Your task to perform on an android device: add a contact in the contacts app Image 0: 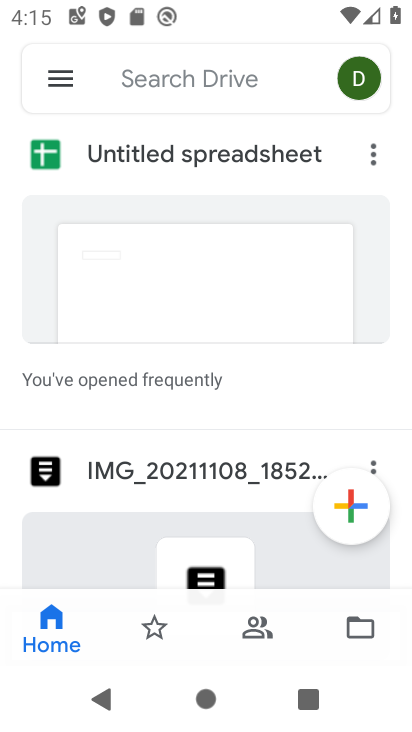
Step 0: press home button
Your task to perform on an android device: add a contact in the contacts app Image 1: 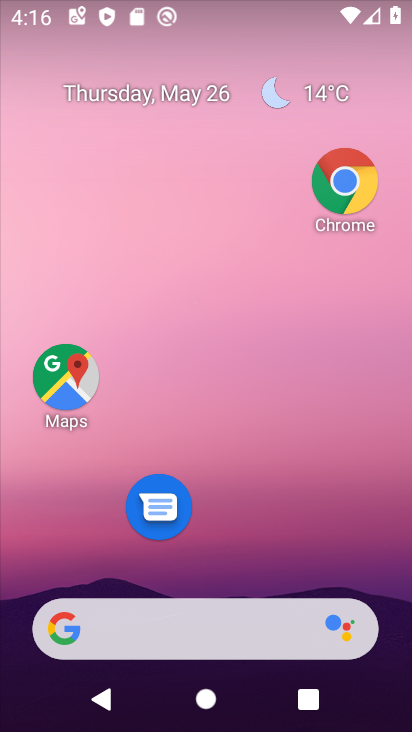
Step 1: drag from (235, 580) to (223, 53)
Your task to perform on an android device: add a contact in the contacts app Image 2: 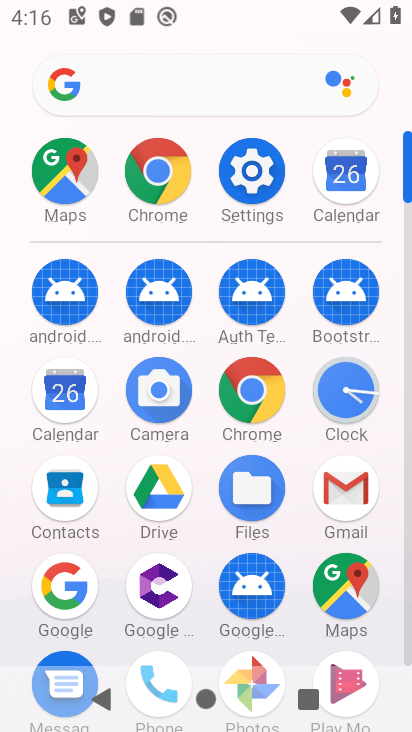
Step 2: drag from (196, 352) to (206, 45)
Your task to perform on an android device: add a contact in the contacts app Image 3: 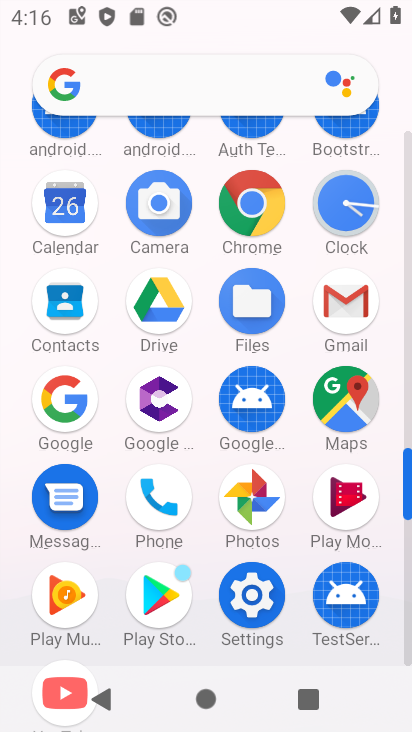
Step 3: click (55, 293)
Your task to perform on an android device: add a contact in the contacts app Image 4: 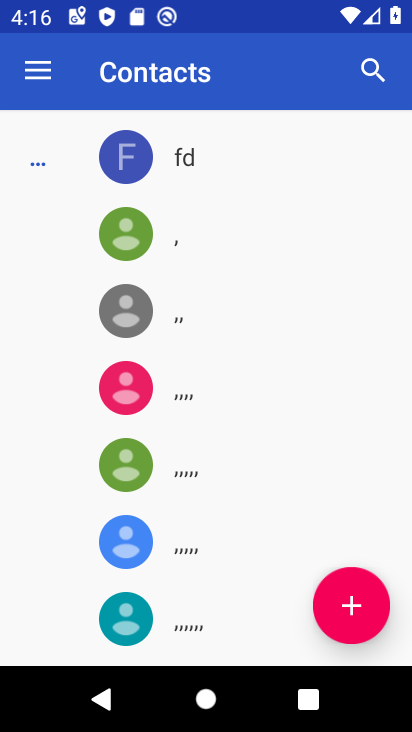
Step 4: click (347, 614)
Your task to perform on an android device: add a contact in the contacts app Image 5: 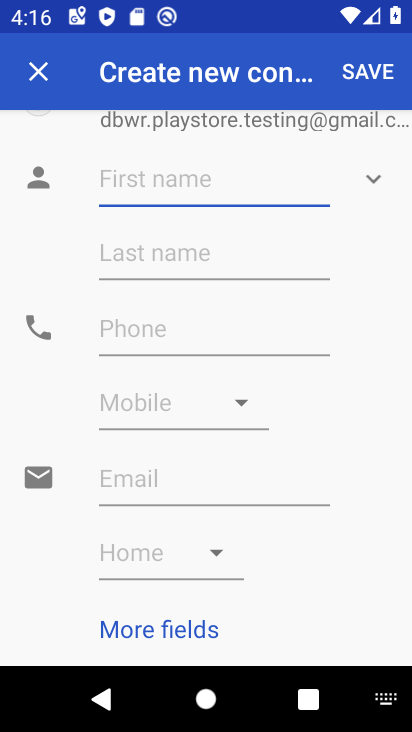
Step 5: type "nnmmo"
Your task to perform on an android device: add a contact in the contacts app Image 6: 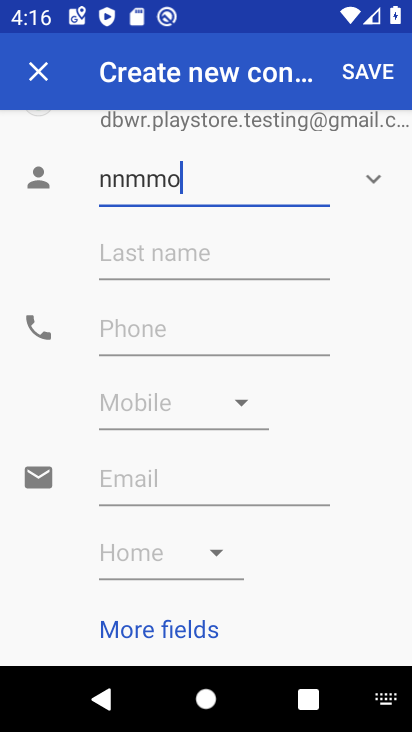
Step 6: click (135, 325)
Your task to perform on an android device: add a contact in the contacts app Image 7: 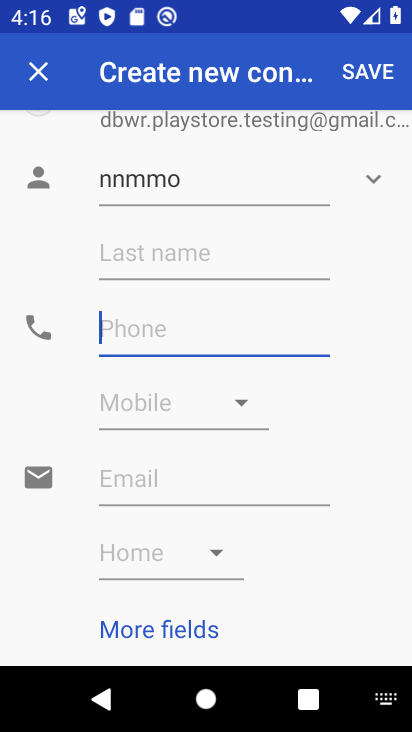
Step 7: type "5647"
Your task to perform on an android device: add a contact in the contacts app Image 8: 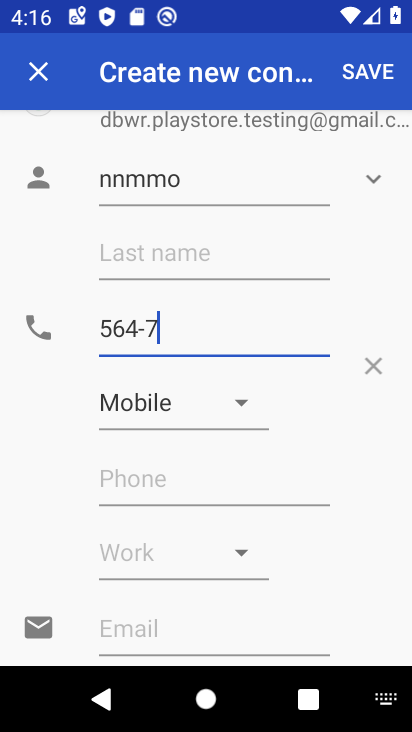
Step 8: click (354, 72)
Your task to perform on an android device: add a contact in the contacts app Image 9: 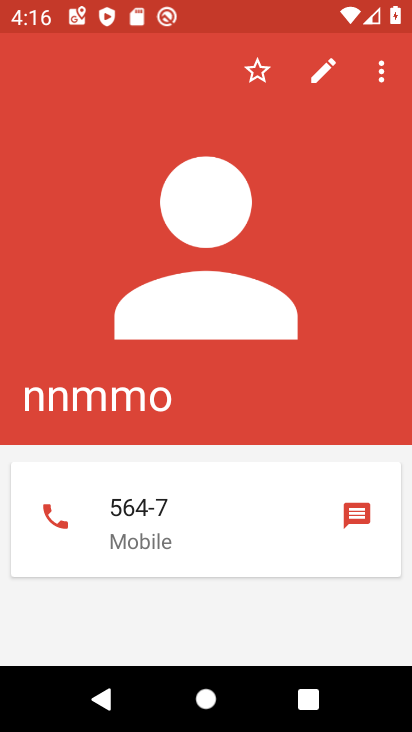
Step 9: task complete